Your task to perform on an android device: turn on sleep mode Image 0: 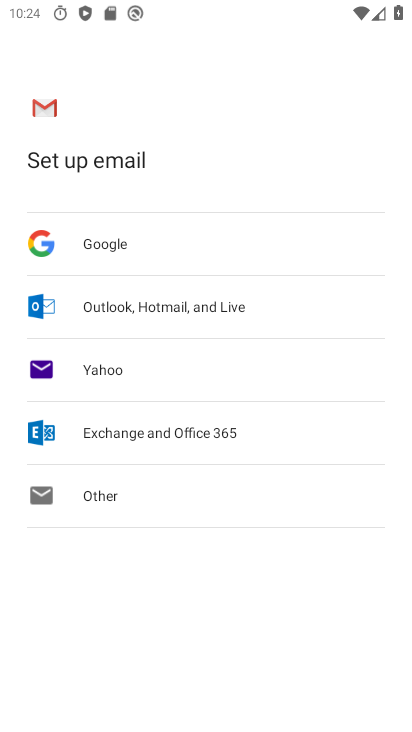
Step 0: press home button
Your task to perform on an android device: turn on sleep mode Image 1: 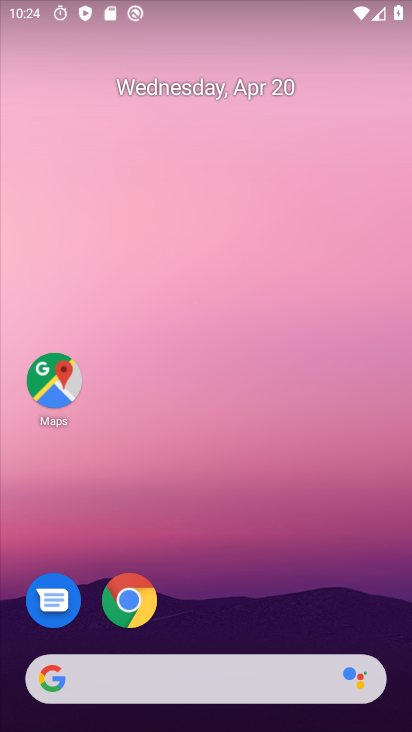
Step 1: drag from (252, 112) to (250, 67)
Your task to perform on an android device: turn on sleep mode Image 2: 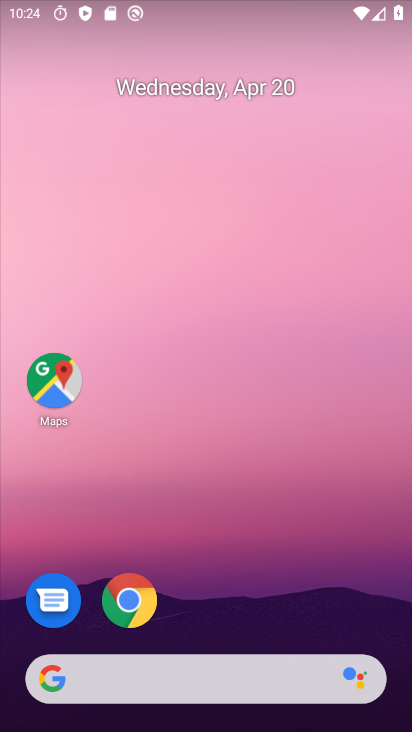
Step 2: drag from (261, 587) to (288, 43)
Your task to perform on an android device: turn on sleep mode Image 3: 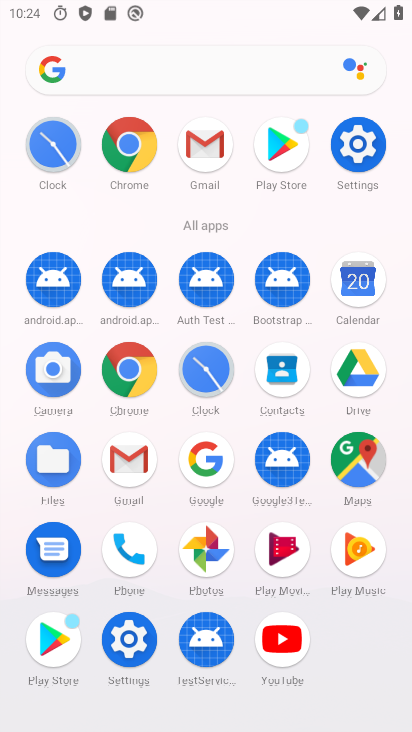
Step 3: click (357, 141)
Your task to perform on an android device: turn on sleep mode Image 4: 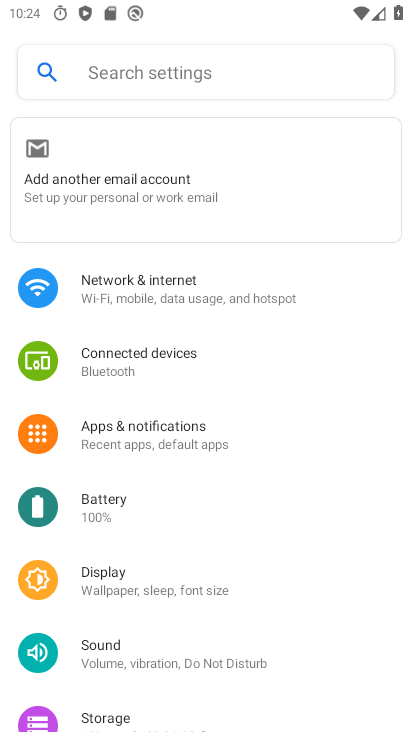
Step 4: click (159, 575)
Your task to perform on an android device: turn on sleep mode Image 5: 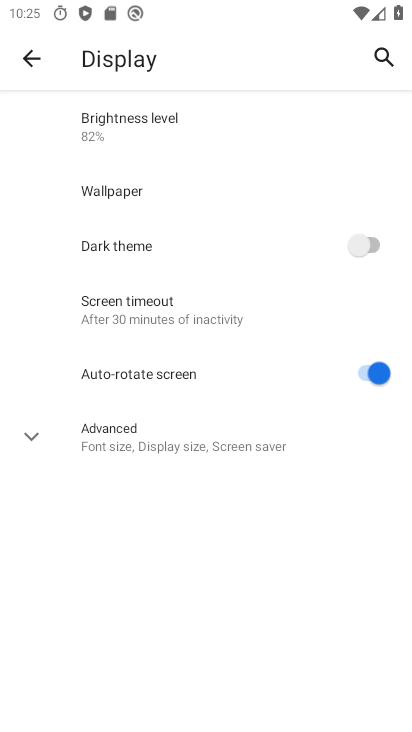
Step 5: click (32, 433)
Your task to perform on an android device: turn on sleep mode Image 6: 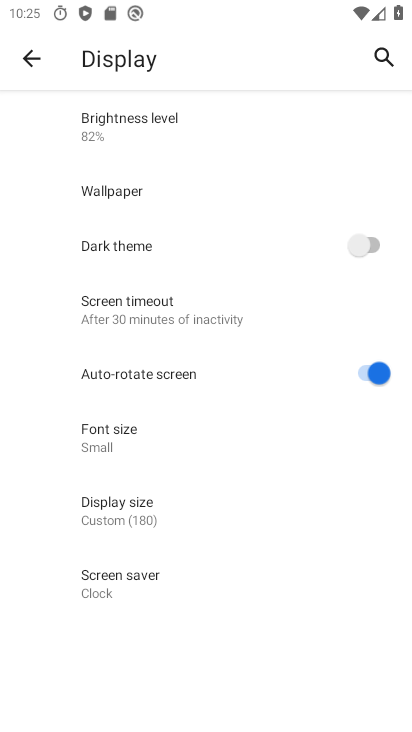
Step 6: task complete